Your task to perform on an android device: Open Google Chrome and click the shortcut for Amazon.com Image 0: 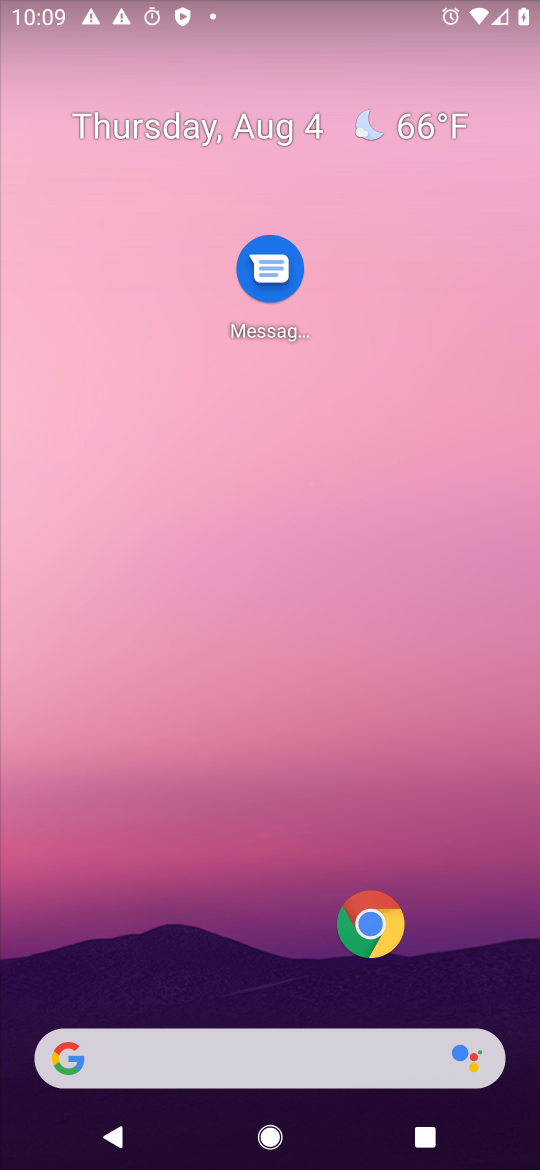
Step 0: drag from (236, 907) to (330, 289)
Your task to perform on an android device: Open Google Chrome and click the shortcut for Amazon.com Image 1: 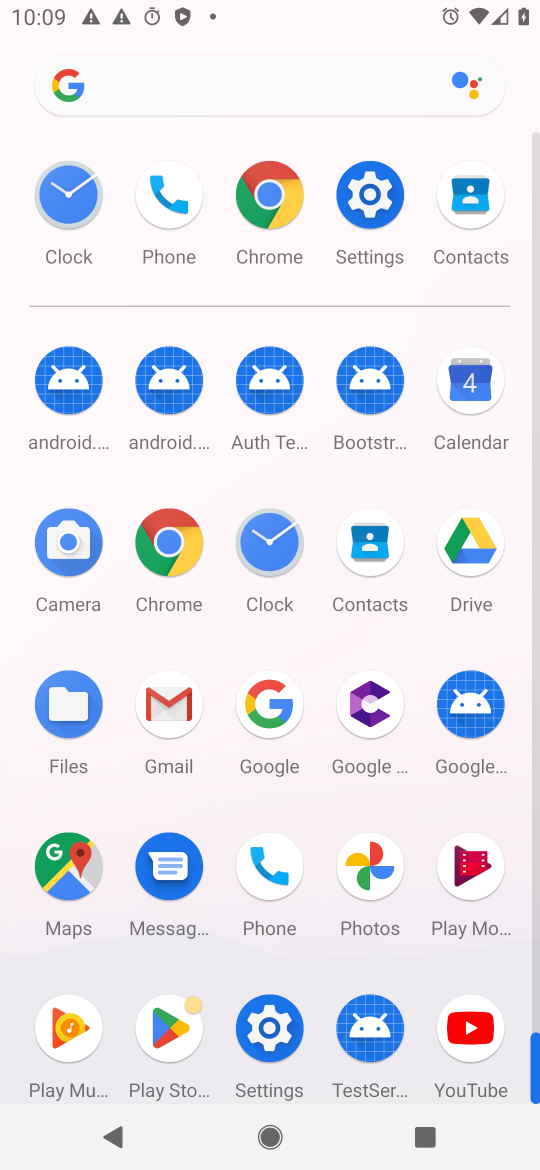
Step 1: click (260, 159)
Your task to perform on an android device: Open Google Chrome and click the shortcut for Amazon.com Image 2: 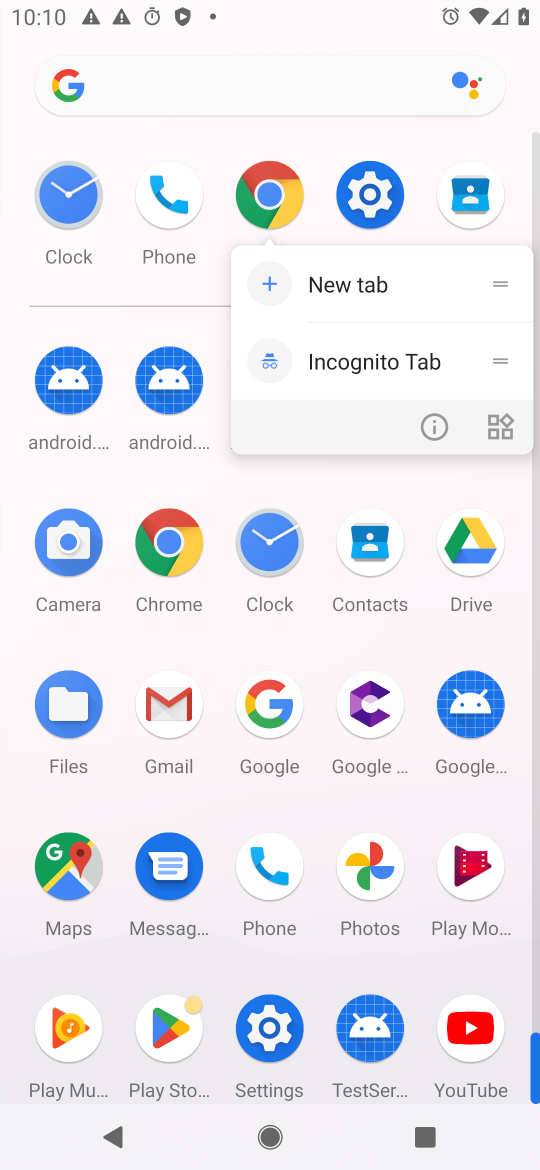
Step 2: click (422, 429)
Your task to perform on an android device: Open Google Chrome and click the shortcut for Amazon.com Image 3: 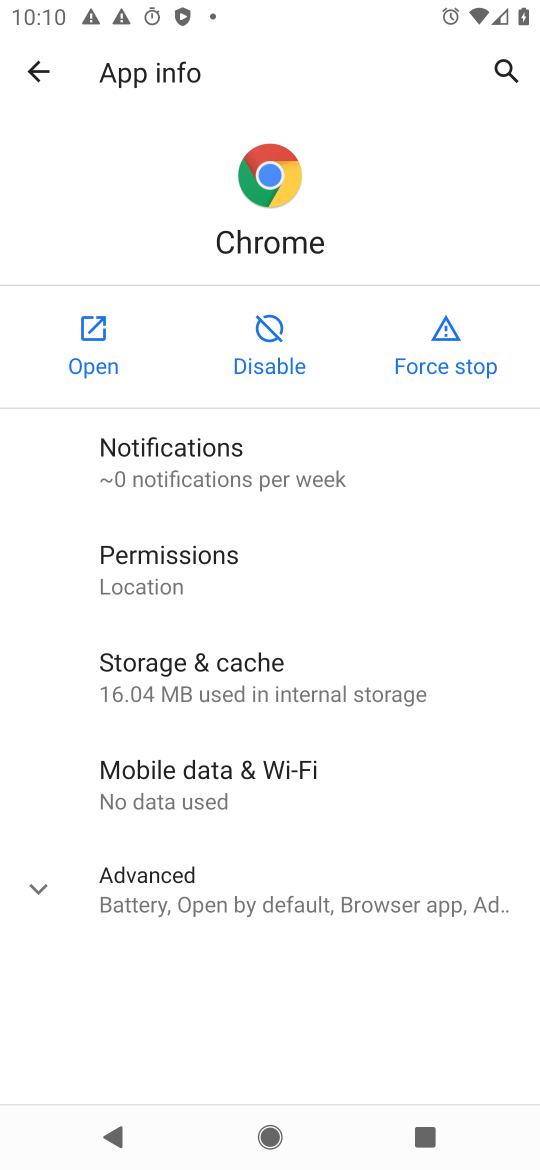
Step 3: click (96, 352)
Your task to perform on an android device: Open Google Chrome and click the shortcut for Amazon.com Image 4: 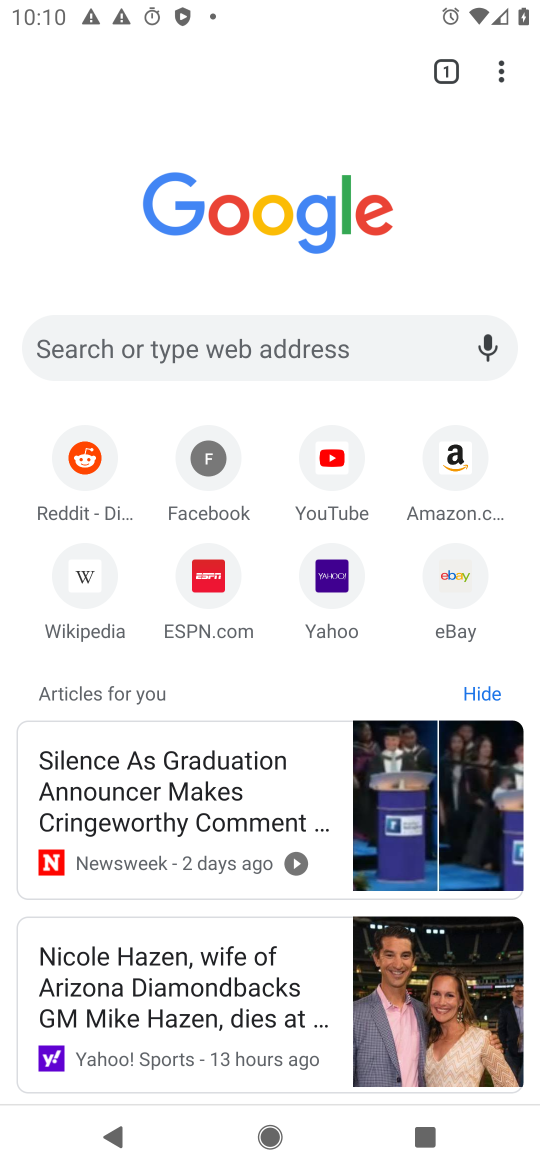
Step 4: click (452, 57)
Your task to perform on an android device: Open Google Chrome and click the shortcut for Amazon.com Image 5: 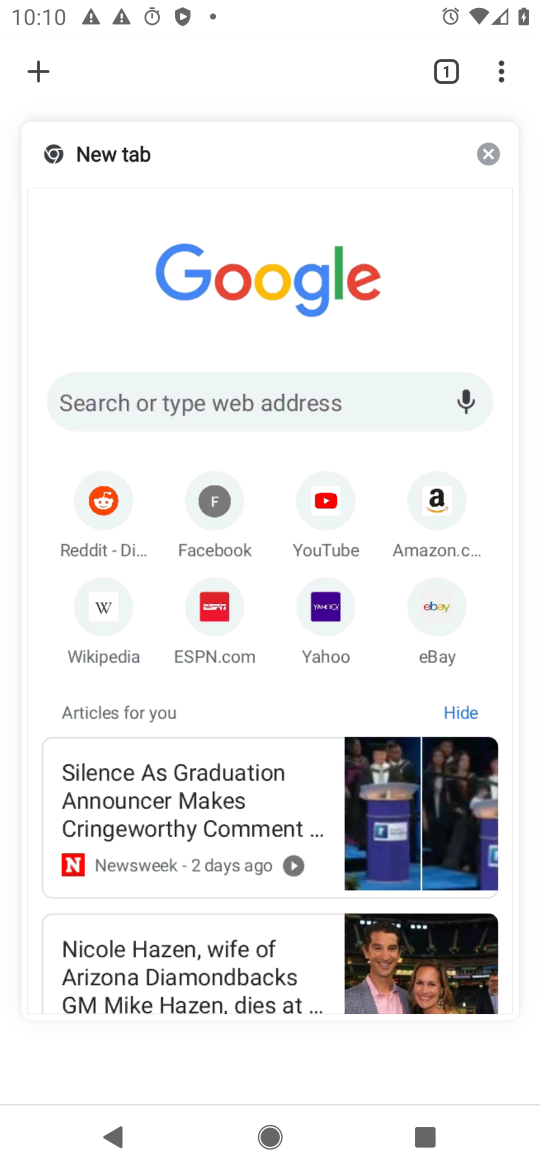
Step 5: drag from (277, 892) to (261, 534)
Your task to perform on an android device: Open Google Chrome and click the shortcut for Amazon.com Image 6: 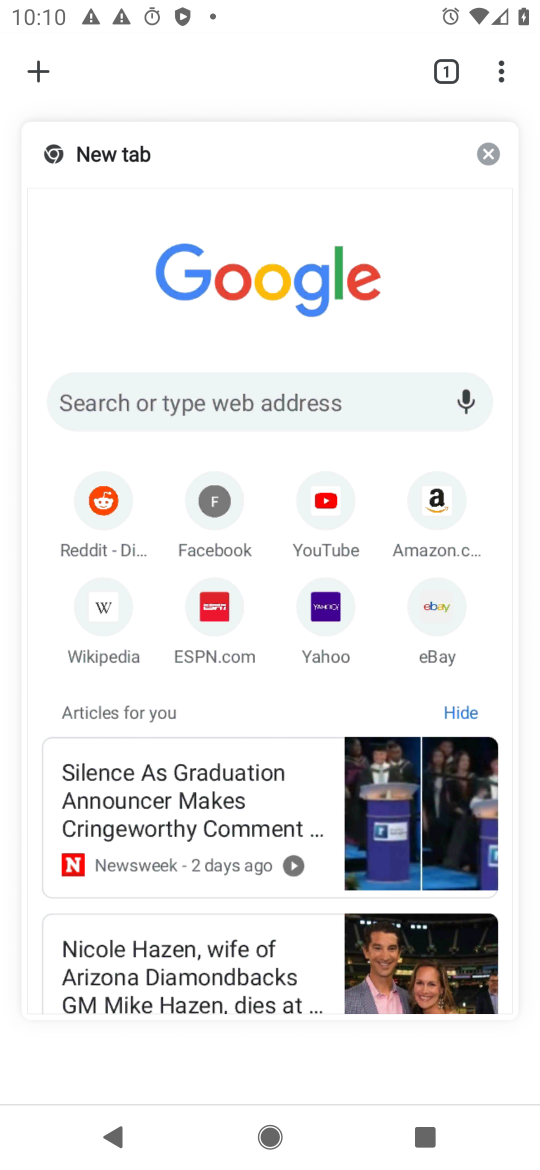
Step 6: drag from (258, 752) to (262, 323)
Your task to perform on an android device: Open Google Chrome and click the shortcut for Amazon.com Image 7: 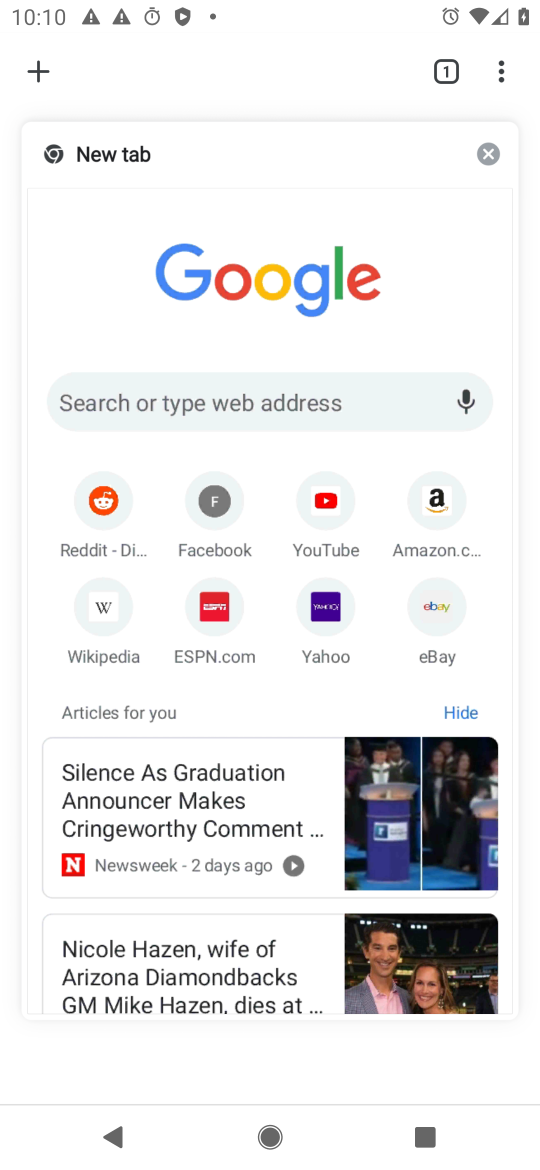
Step 7: click (31, 72)
Your task to perform on an android device: Open Google Chrome and click the shortcut for Amazon.com Image 8: 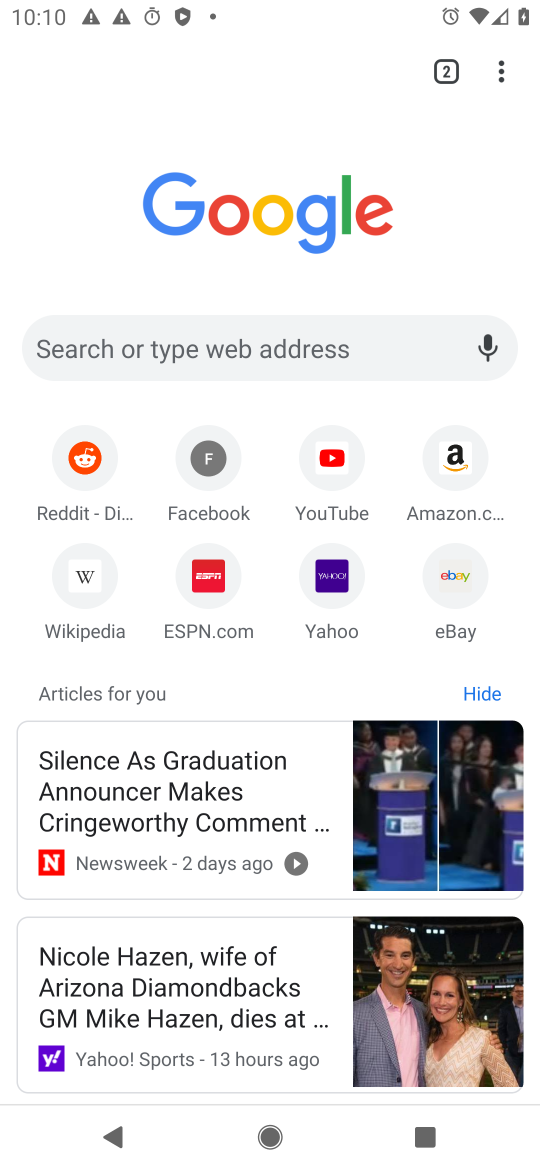
Step 8: click (442, 471)
Your task to perform on an android device: Open Google Chrome and click the shortcut for Amazon.com Image 9: 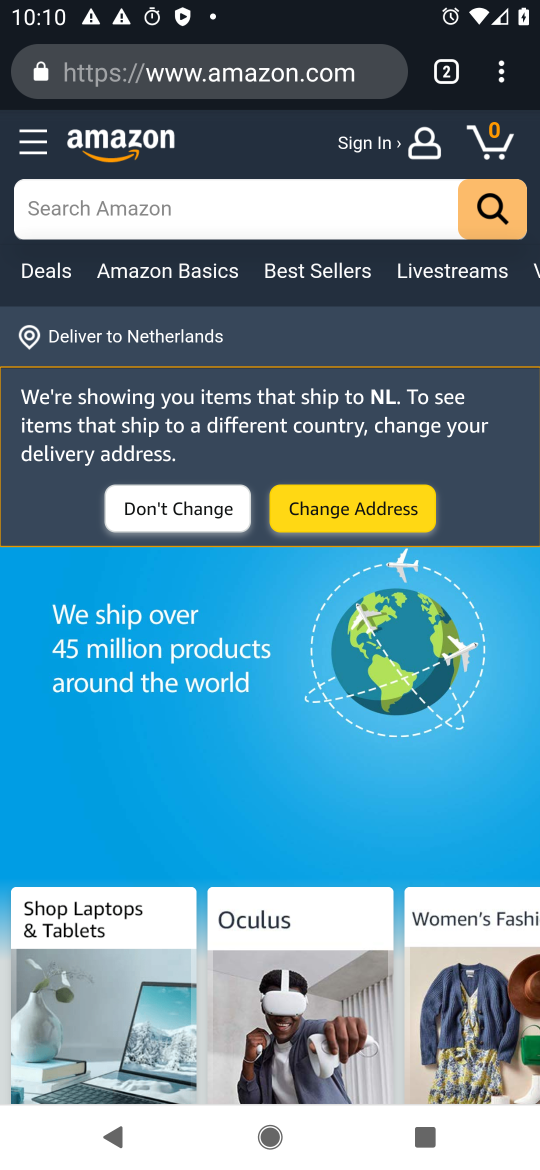
Step 9: task complete